Your task to perform on an android device: Go to Wikipedia Image 0: 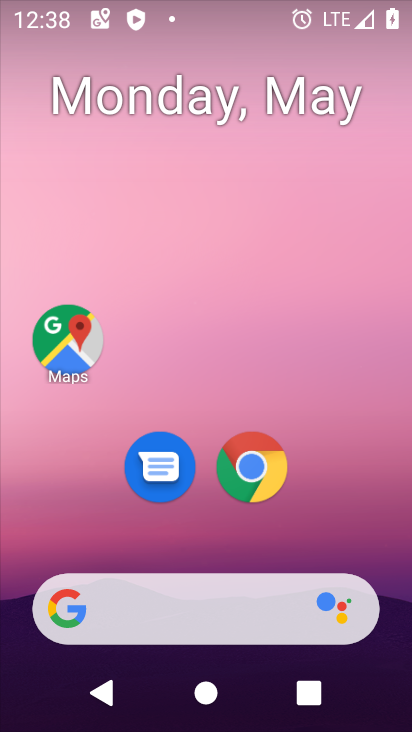
Step 0: click (249, 474)
Your task to perform on an android device: Go to Wikipedia Image 1: 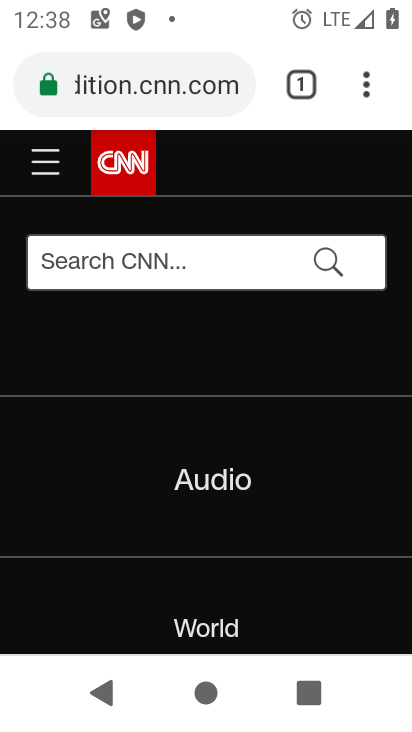
Step 1: click (97, 87)
Your task to perform on an android device: Go to Wikipedia Image 2: 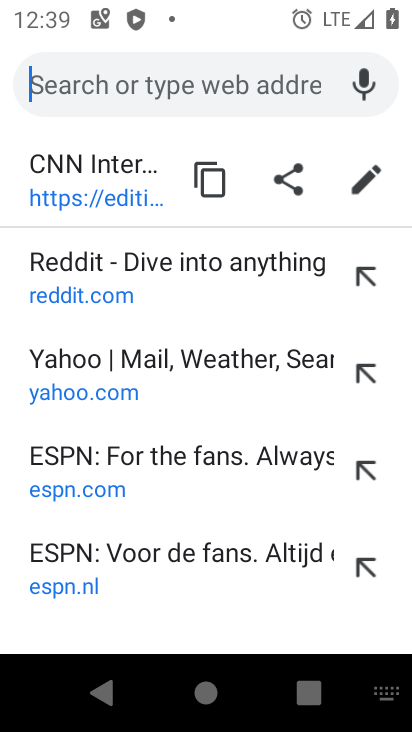
Step 2: type "wikipedia"
Your task to perform on an android device: Go to Wikipedia Image 3: 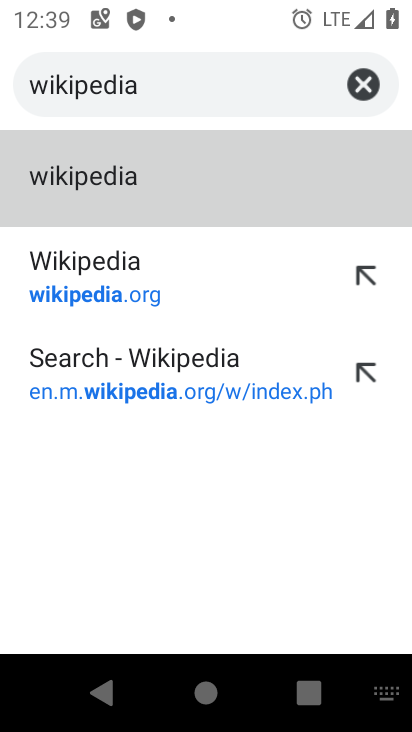
Step 3: click (48, 287)
Your task to perform on an android device: Go to Wikipedia Image 4: 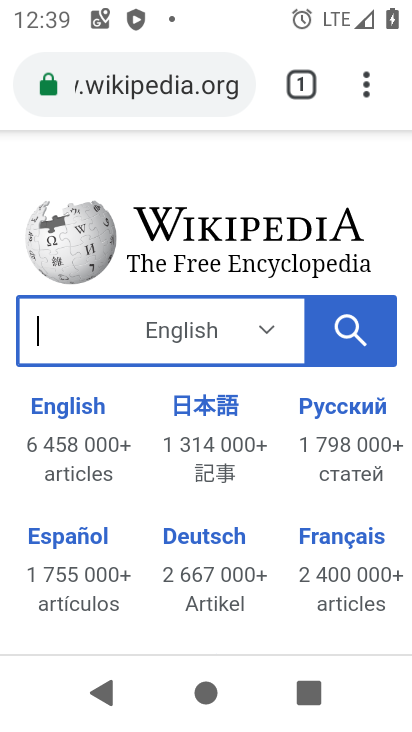
Step 4: task complete